Your task to perform on an android device: turn notification dots on Image 0: 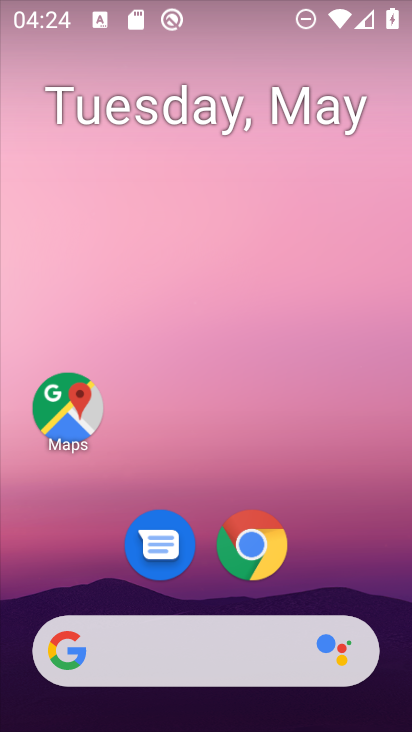
Step 0: drag from (388, 608) to (354, 107)
Your task to perform on an android device: turn notification dots on Image 1: 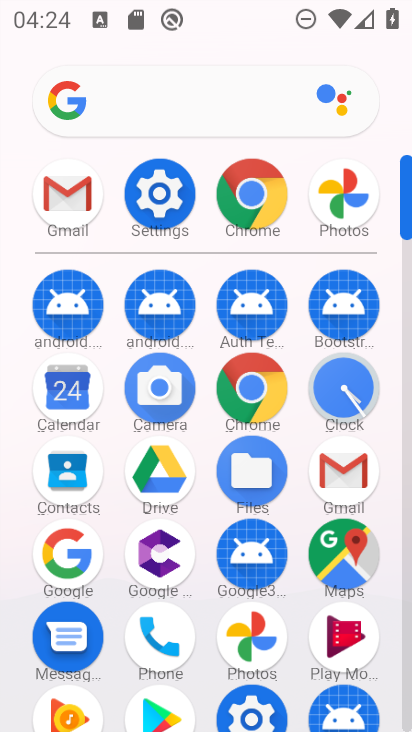
Step 1: click (411, 682)
Your task to perform on an android device: turn notification dots on Image 2: 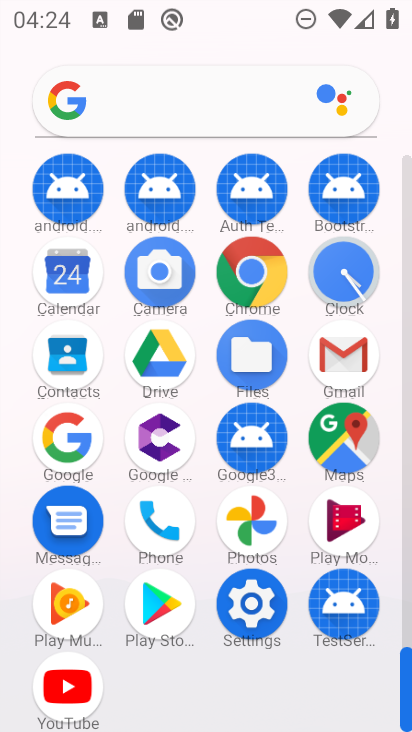
Step 2: click (250, 608)
Your task to perform on an android device: turn notification dots on Image 3: 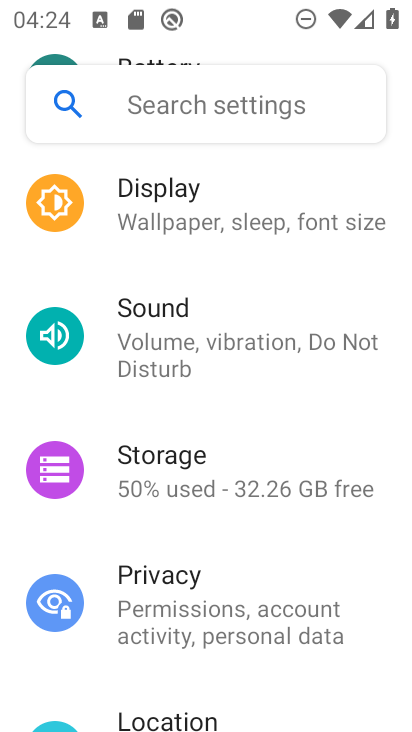
Step 3: drag from (363, 222) to (335, 550)
Your task to perform on an android device: turn notification dots on Image 4: 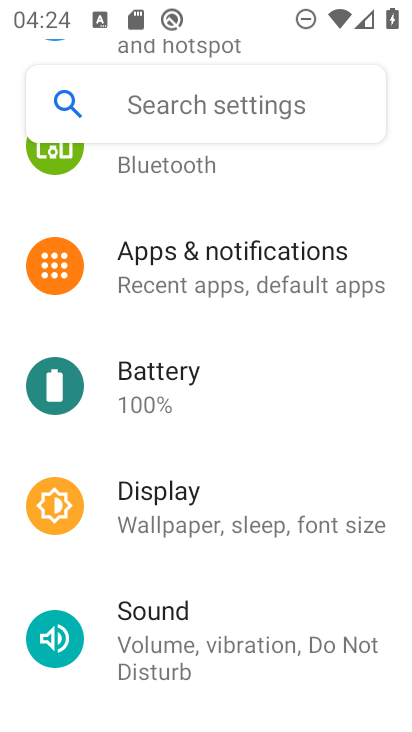
Step 4: click (185, 267)
Your task to perform on an android device: turn notification dots on Image 5: 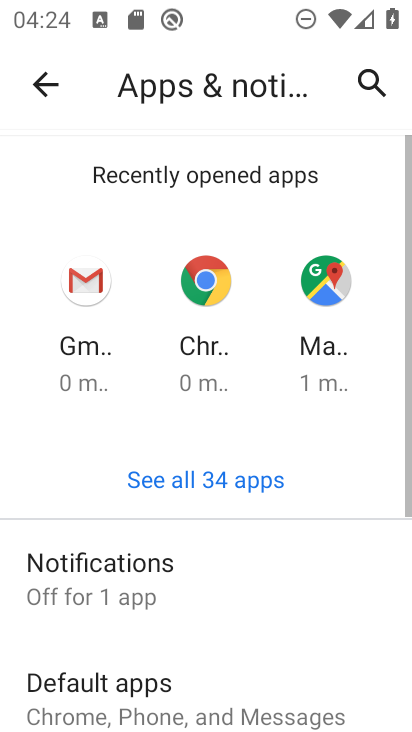
Step 5: click (100, 556)
Your task to perform on an android device: turn notification dots on Image 6: 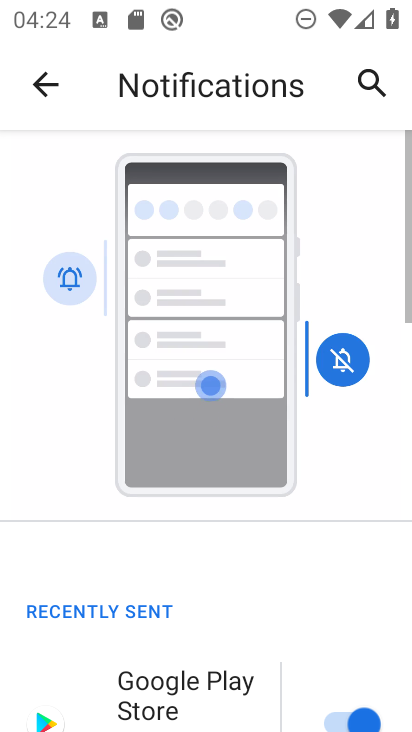
Step 6: drag from (300, 654) to (290, 202)
Your task to perform on an android device: turn notification dots on Image 7: 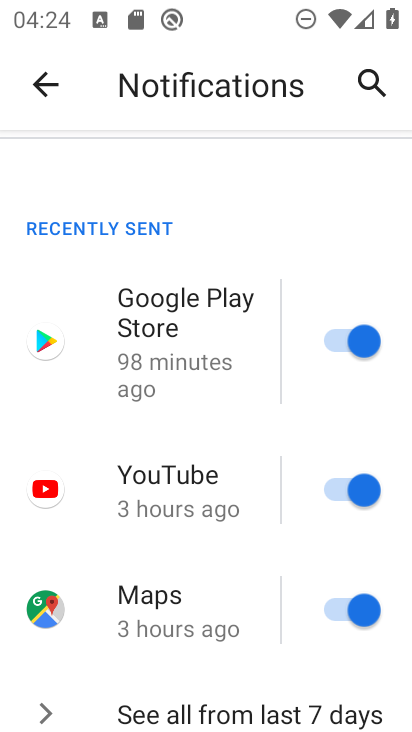
Step 7: drag from (285, 699) to (267, 236)
Your task to perform on an android device: turn notification dots on Image 8: 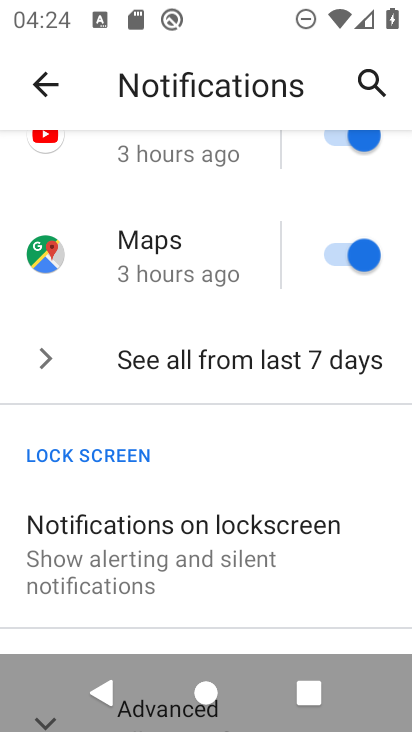
Step 8: drag from (242, 617) to (256, 133)
Your task to perform on an android device: turn notification dots on Image 9: 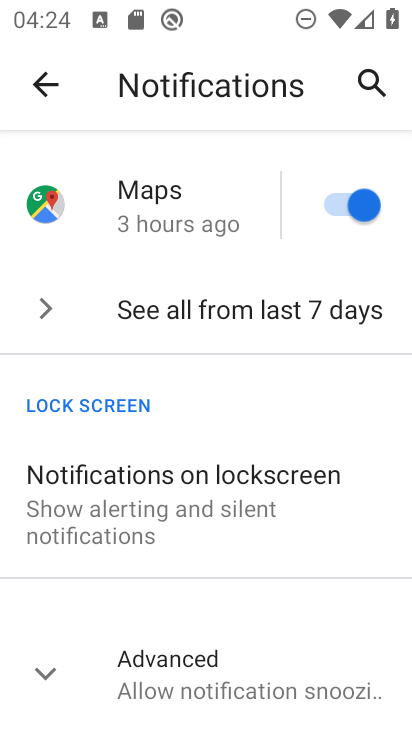
Step 9: click (41, 682)
Your task to perform on an android device: turn notification dots on Image 10: 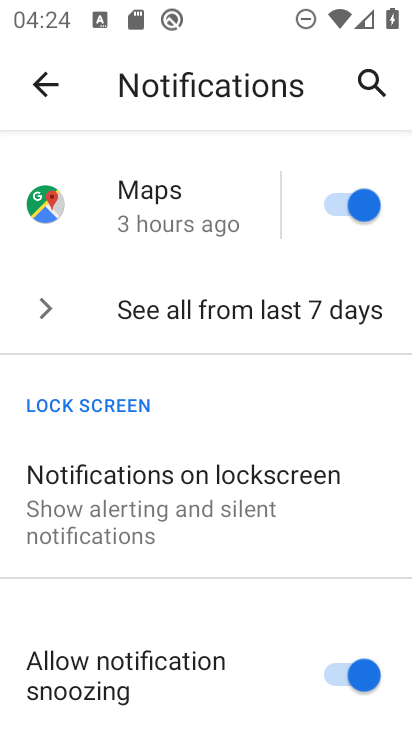
Step 10: drag from (316, 671) to (278, 192)
Your task to perform on an android device: turn notification dots on Image 11: 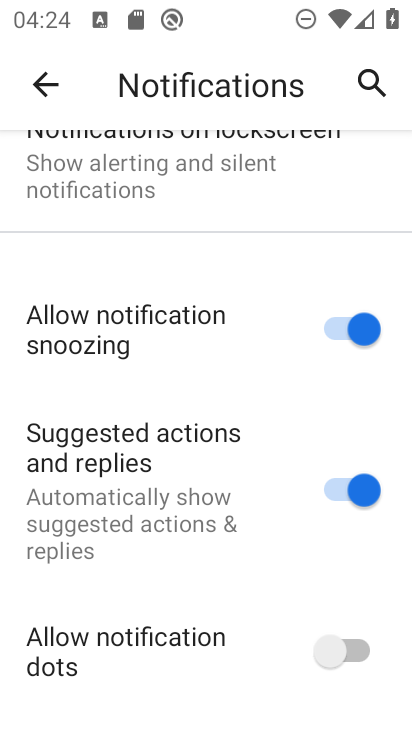
Step 11: click (357, 658)
Your task to perform on an android device: turn notification dots on Image 12: 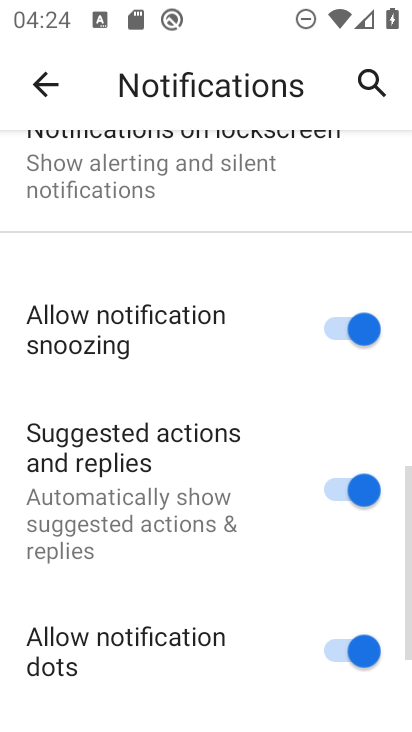
Step 12: task complete